Your task to perform on an android device: Set the phone to "Do not disturb". Image 0: 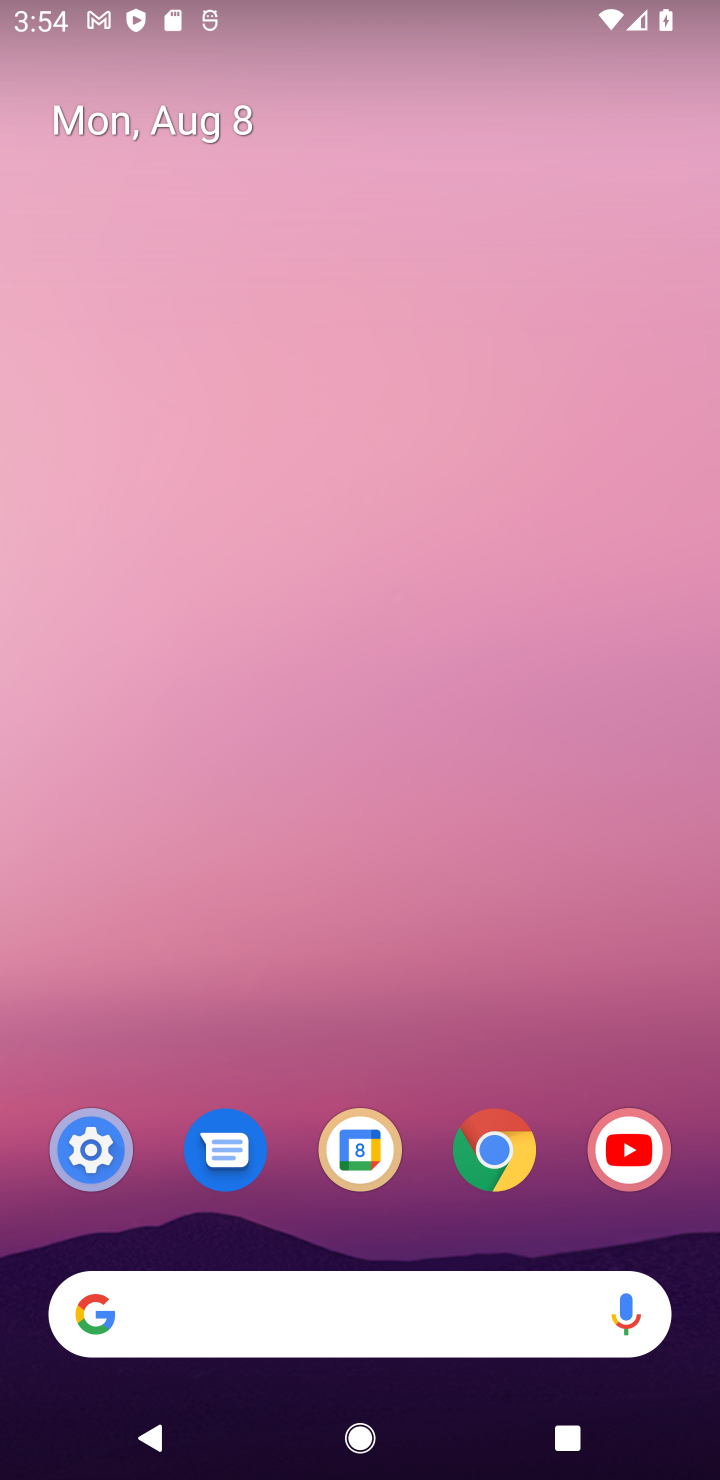
Step 0: drag from (183, 1235) to (159, 224)
Your task to perform on an android device: Set the phone to "Do not disturb". Image 1: 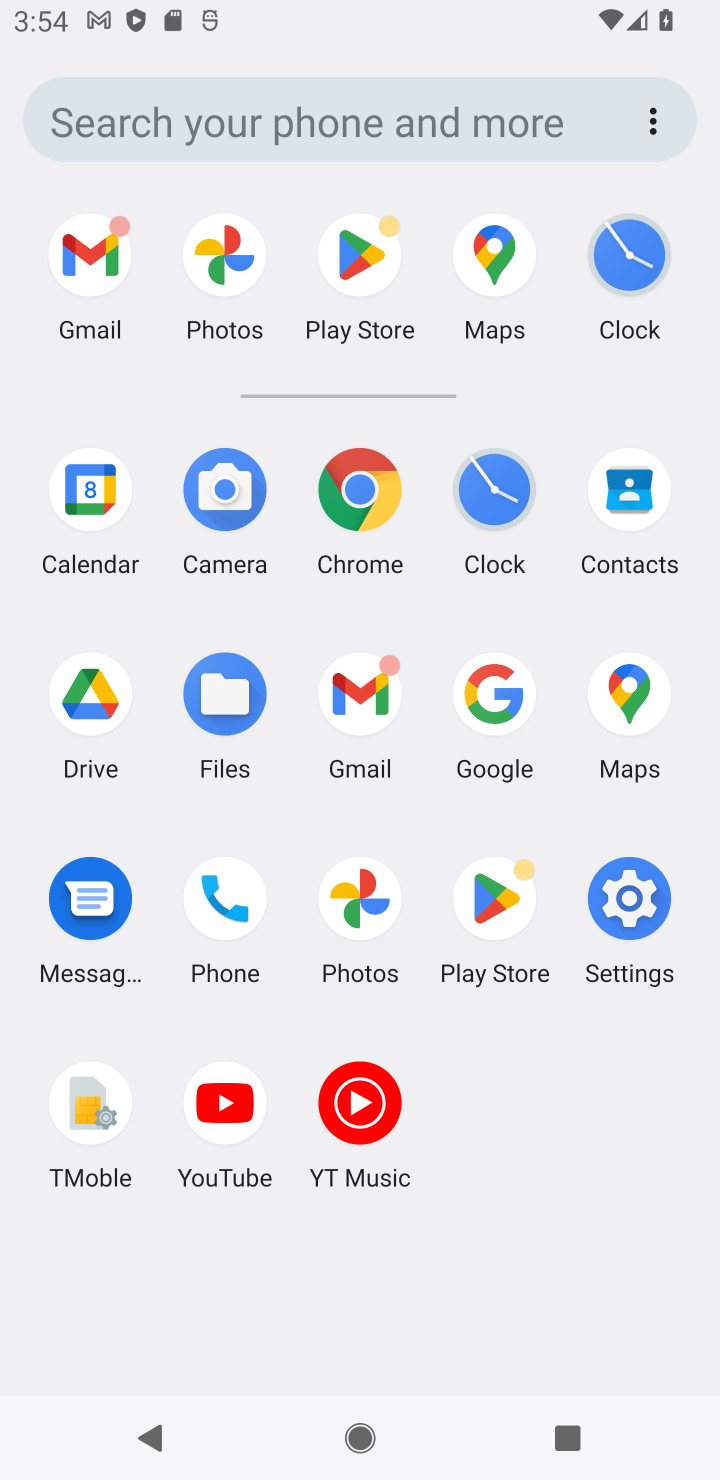
Step 1: click (619, 950)
Your task to perform on an android device: Set the phone to "Do not disturb". Image 2: 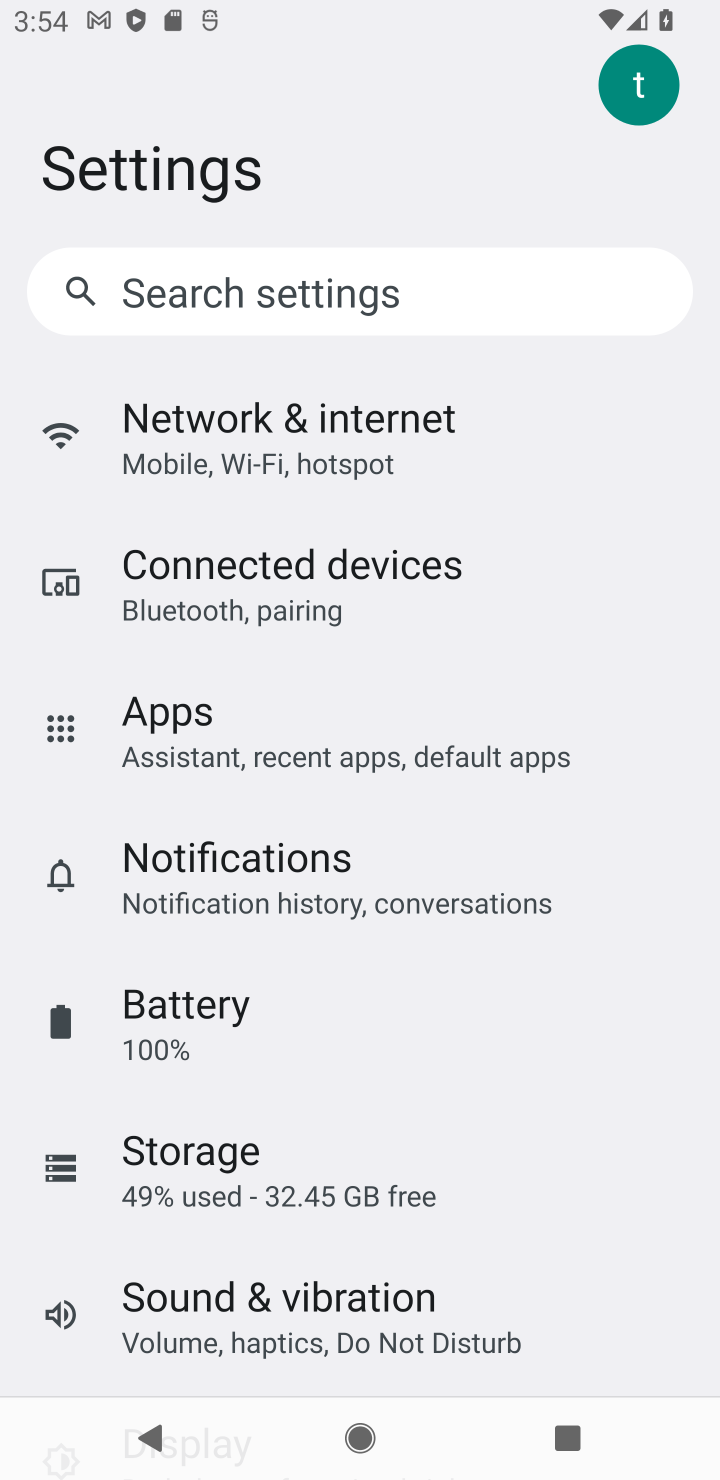
Step 2: task complete